Your task to perform on an android device: turn off smart reply in the gmail app Image 0: 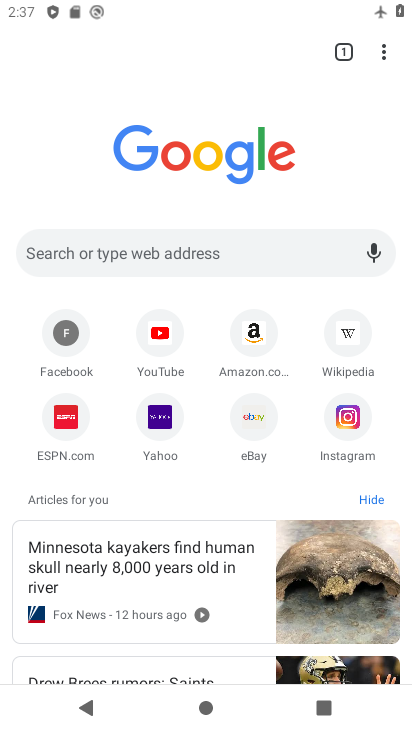
Step 0: press home button
Your task to perform on an android device: turn off smart reply in the gmail app Image 1: 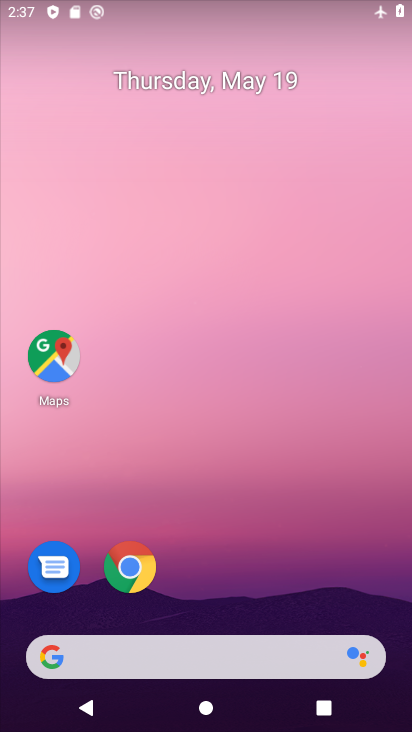
Step 1: drag from (204, 627) to (158, 18)
Your task to perform on an android device: turn off smart reply in the gmail app Image 2: 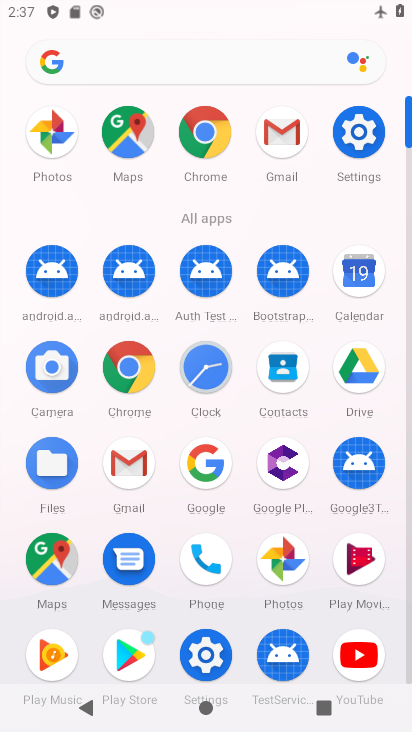
Step 2: click (123, 470)
Your task to perform on an android device: turn off smart reply in the gmail app Image 3: 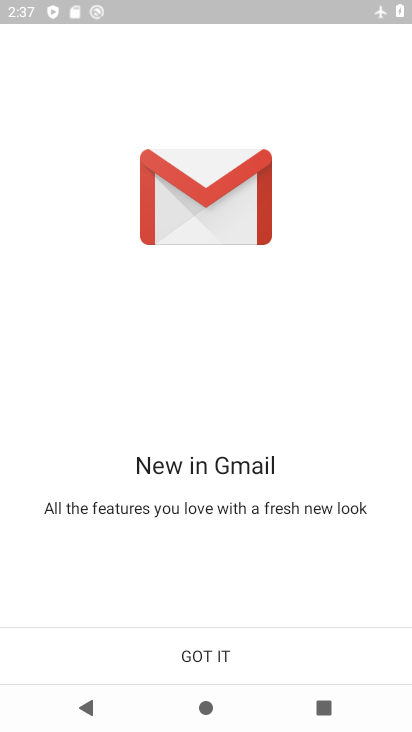
Step 3: click (176, 651)
Your task to perform on an android device: turn off smart reply in the gmail app Image 4: 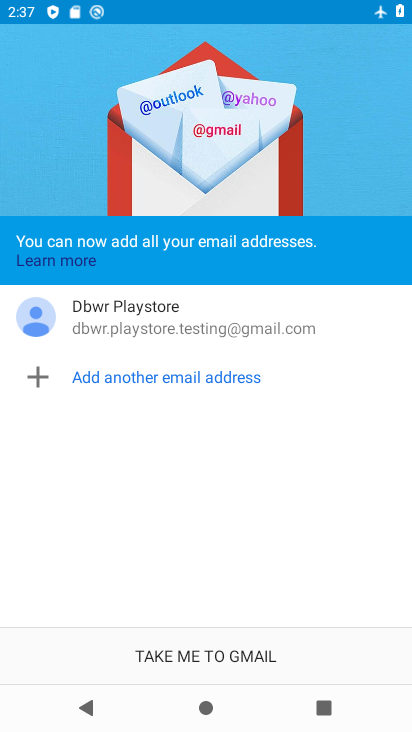
Step 4: click (176, 651)
Your task to perform on an android device: turn off smart reply in the gmail app Image 5: 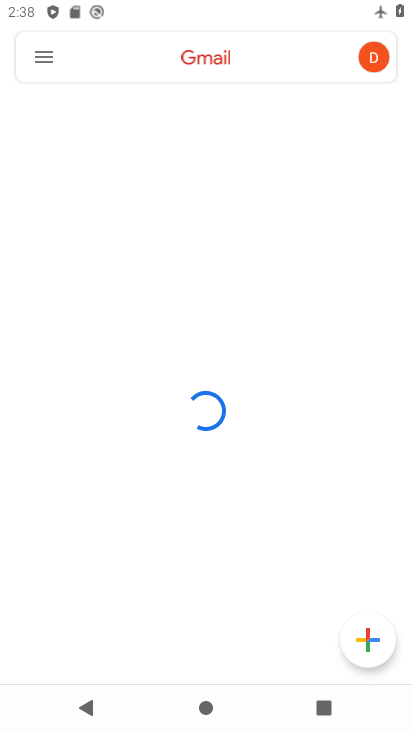
Step 5: click (32, 53)
Your task to perform on an android device: turn off smart reply in the gmail app Image 6: 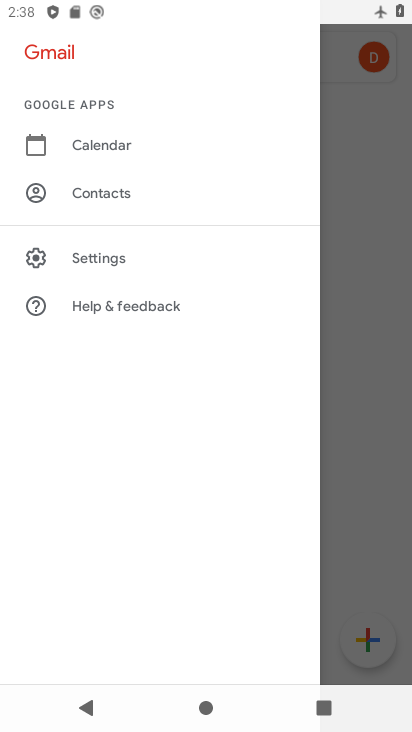
Step 6: click (98, 242)
Your task to perform on an android device: turn off smart reply in the gmail app Image 7: 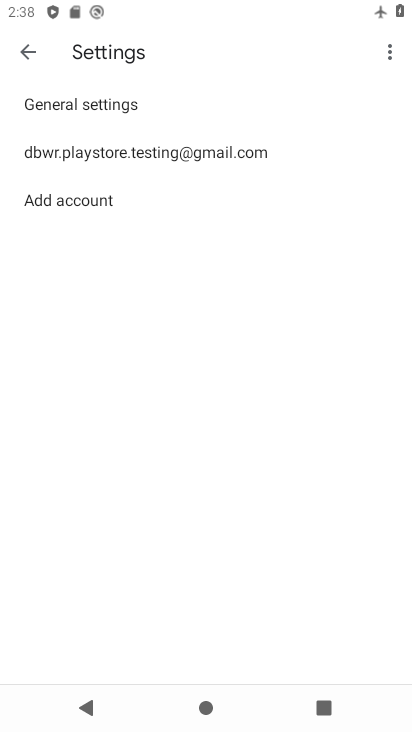
Step 7: click (118, 165)
Your task to perform on an android device: turn off smart reply in the gmail app Image 8: 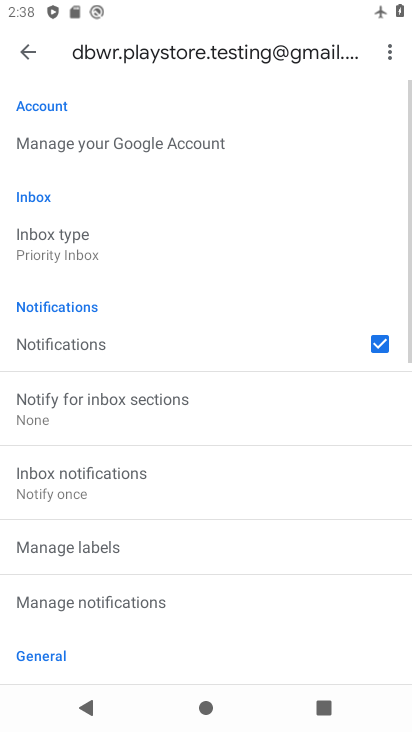
Step 8: drag from (215, 591) to (168, 195)
Your task to perform on an android device: turn off smart reply in the gmail app Image 9: 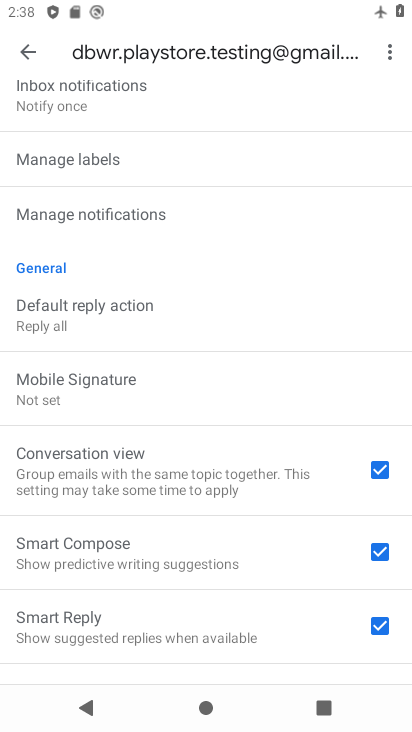
Step 9: click (330, 622)
Your task to perform on an android device: turn off smart reply in the gmail app Image 10: 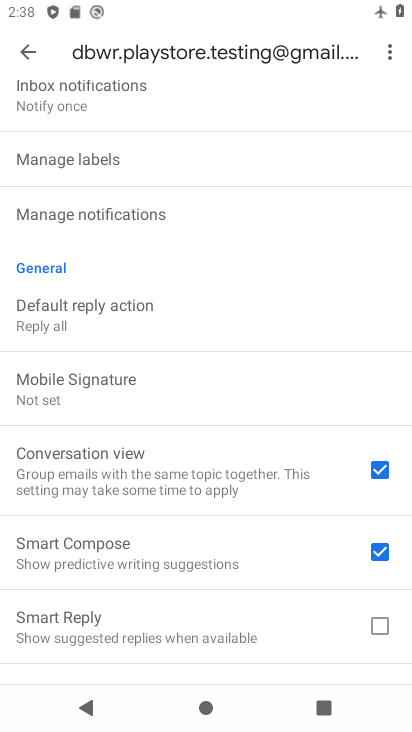
Step 10: task complete